Your task to perform on an android device: change the clock display to analog Image 0: 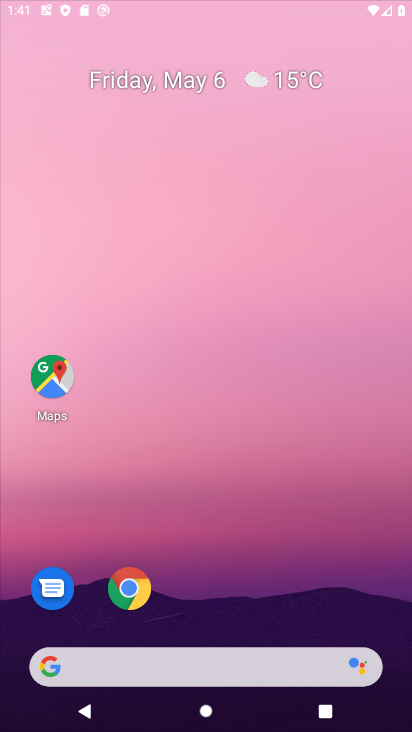
Step 0: click (259, 187)
Your task to perform on an android device: change the clock display to analog Image 1: 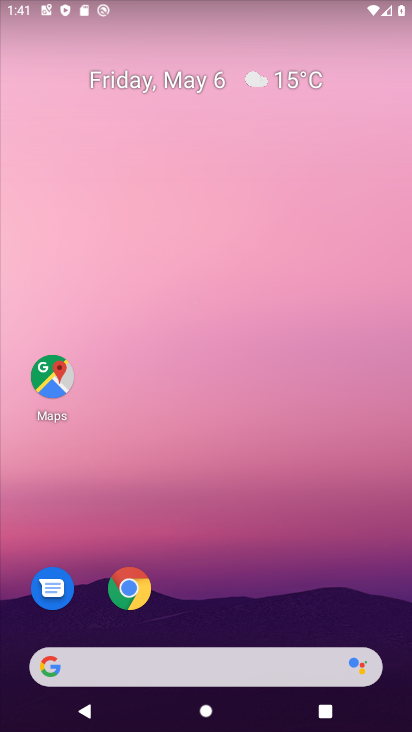
Step 1: drag from (252, 538) to (291, 120)
Your task to perform on an android device: change the clock display to analog Image 2: 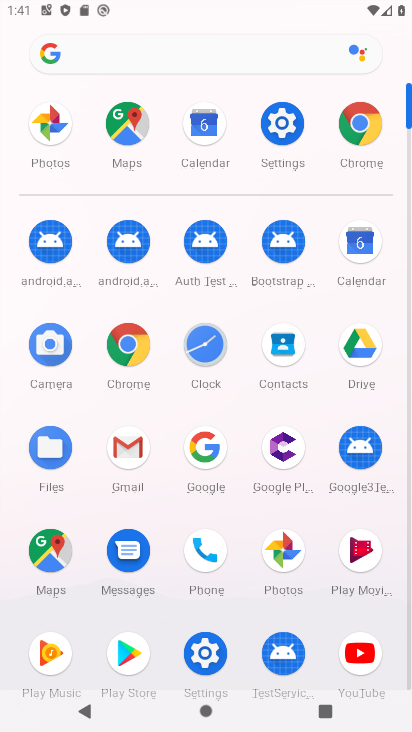
Step 2: click (192, 340)
Your task to perform on an android device: change the clock display to analog Image 3: 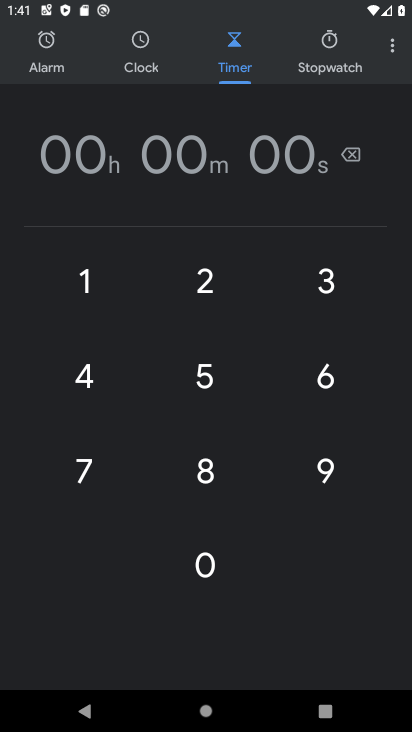
Step 3: click (396, 38)
Your task to perform on an android device: change the clock display to analog Image 4: 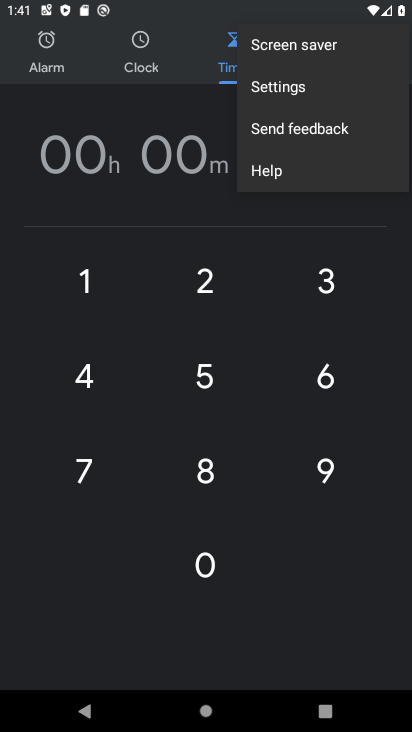
Step 4: click (288, 82)
Your task to perform on an android device: change the clock display to analog Image 5: 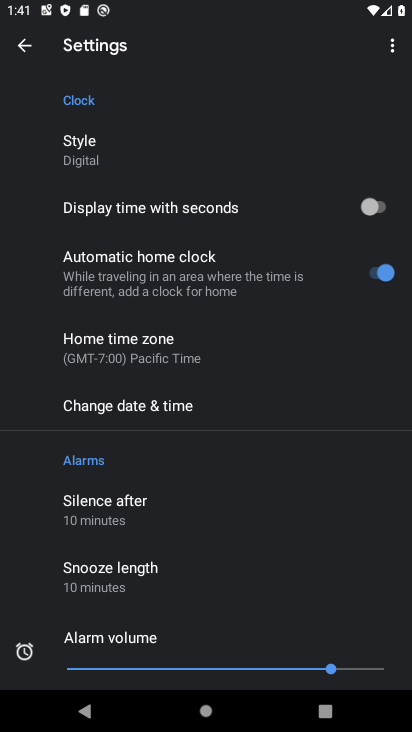
Step 5: click (128, 147)
Your task to perform on an android device: change the clock display to analog Image 6: 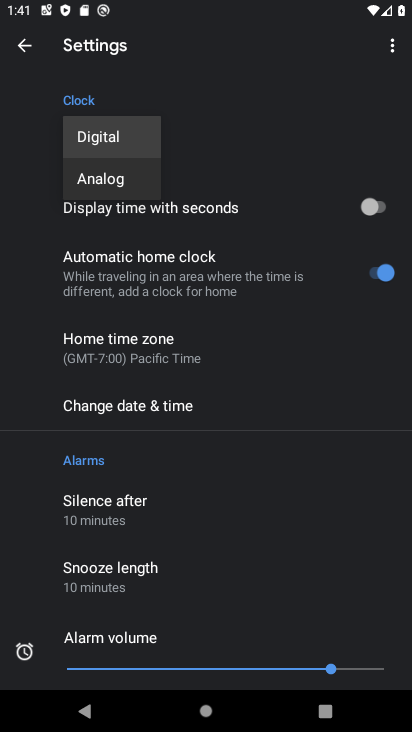
Step 6: click (106, 176)
Your task to perform on an android device: change the clock display to analog Image 7: 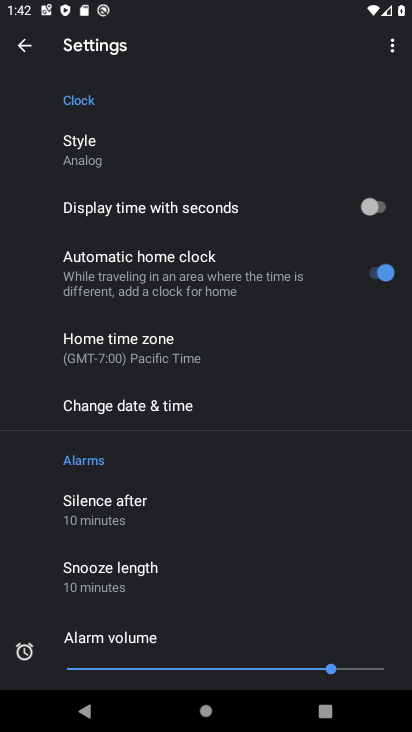
Step 7: click (103, 129)
Your task to perform on an android device: change the clock display to analog Image 8: 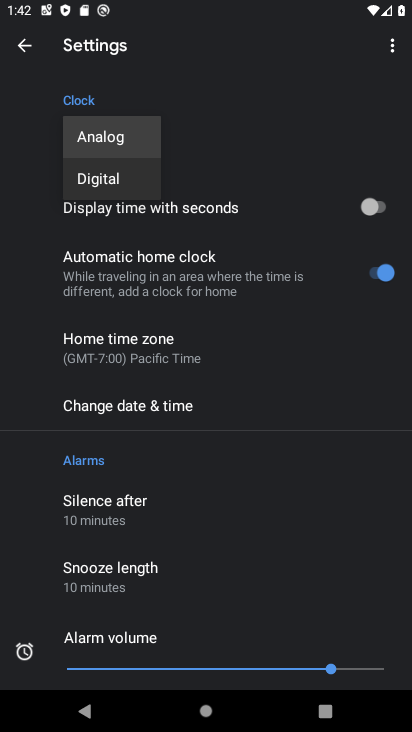
Step 8: click (102, 148)
Your task to perform on an android device: change the clock display to analog Image 9: 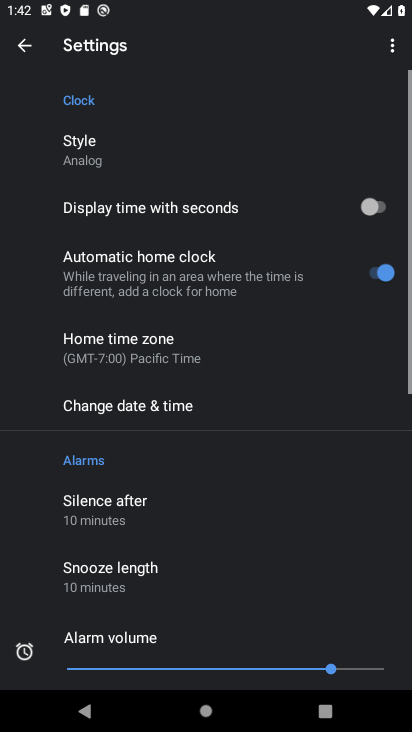
Step 9: click (131, 141)
Your task to perform on an android device: change the clock display to analog Image 10: 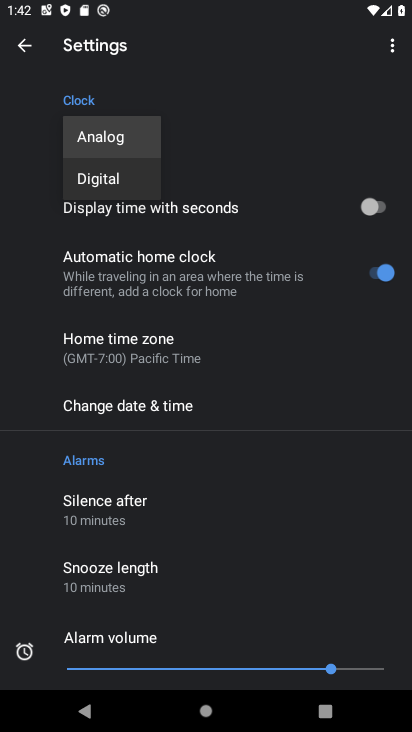
Step 10: click (129, 140)
Your task to perform on an android device: change the clock display to analog Image 11: 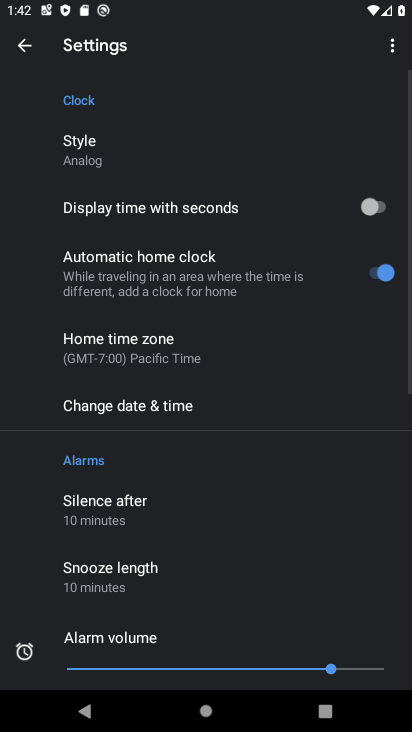
Step 11: click (100, 139)
Your task to perform on an android device: change the clock display to analog Image 12: 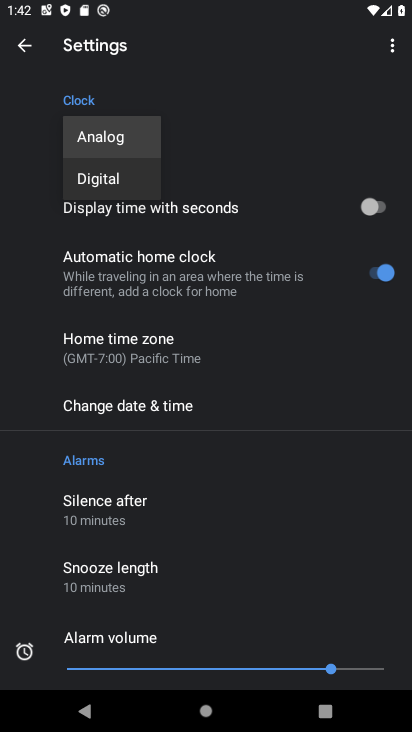
Step 12: task complete